Your task to perform on an android device: Go to Google maps Image 0: 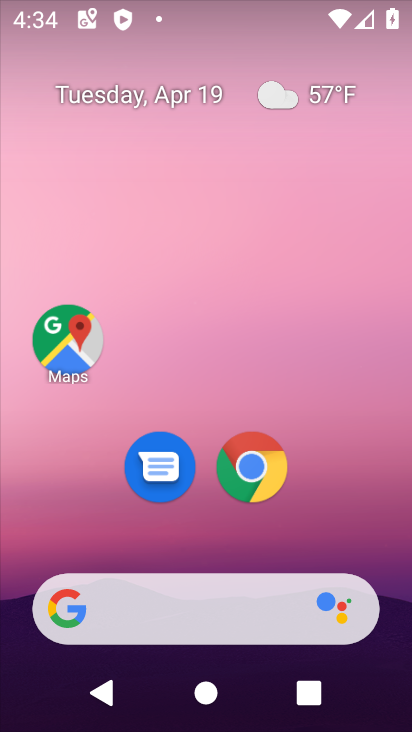
Step 0: drag from (196, 265) to (198, 10)
Your task to perform on an android device: Go to Google maps Image 1: 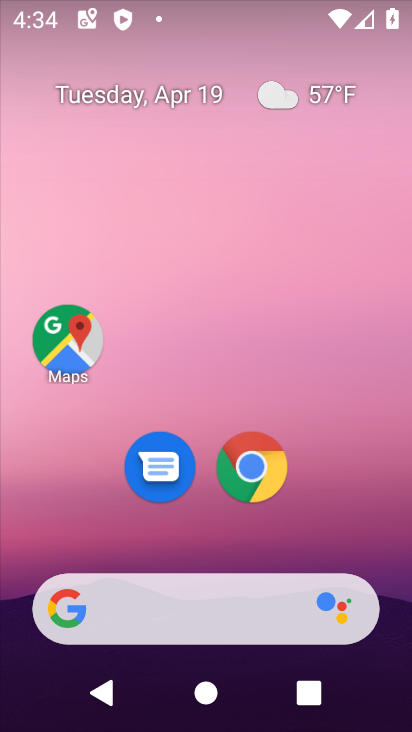
Step 1: drag from (237, 489) to (197, 286)
Your task to perform on an android device: Go to Google maps Image 2: 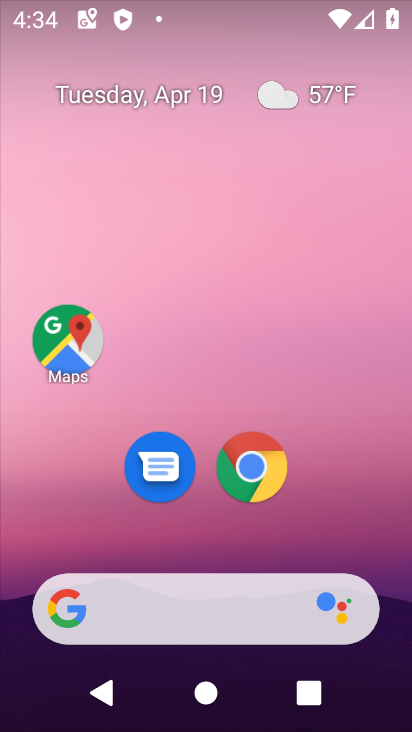
Step 2: click (86, 369)
Your task to perform on an android device: Go to Google maps Image 3: 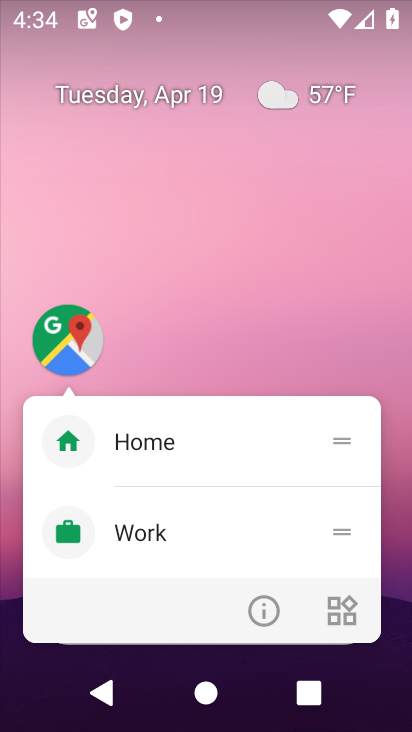
Step 3: click (89, 346)
Your task to perform on an android device: Go to Google maps Image 4: 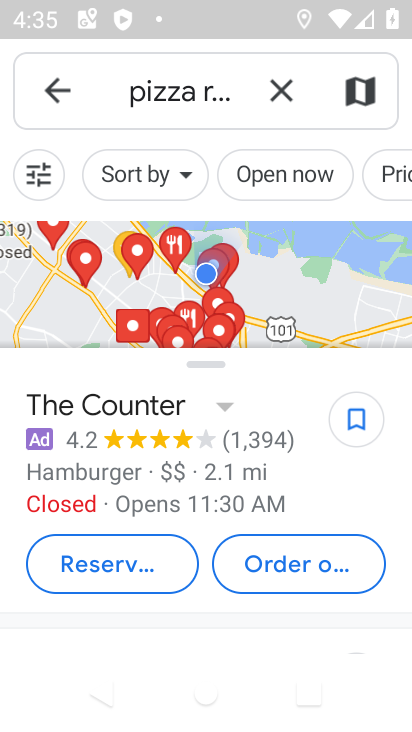
Step 4: task complete